Your task to perform on an android device: Open maps Image 0: 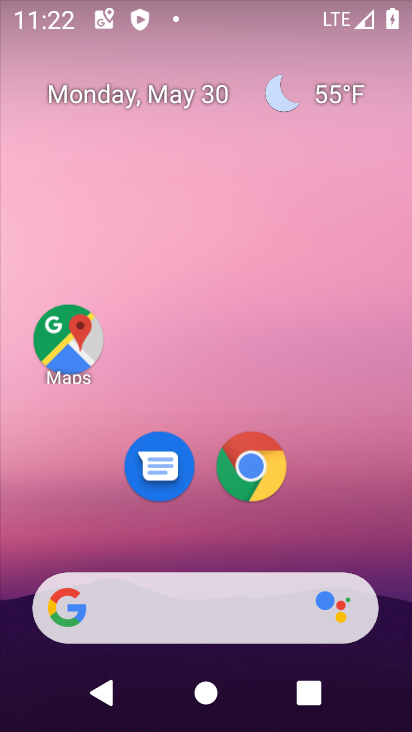
Step 0: click (73, 338)
Your task to perform on an android device: Open maps Image 1: 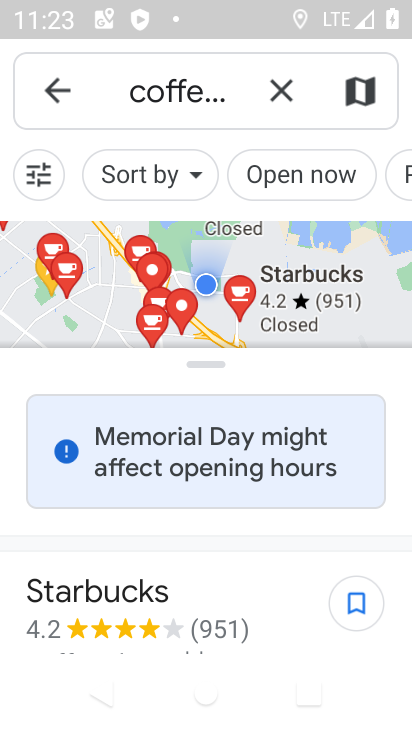
Step 1: task complete